Your task to perform on an android device: Add apple airpods pro to the cart on walmart, then select checkout. Image 0: 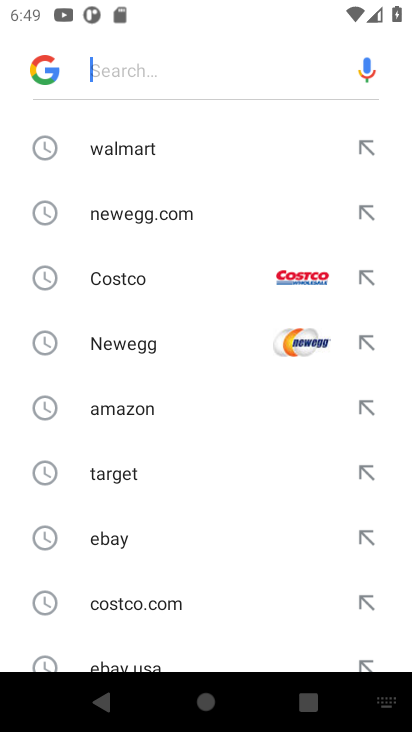
Step 0: press home button
Your task to perform on an android device: Add apple airpods pro to the cart on walmart, then select checkout. Image 1: 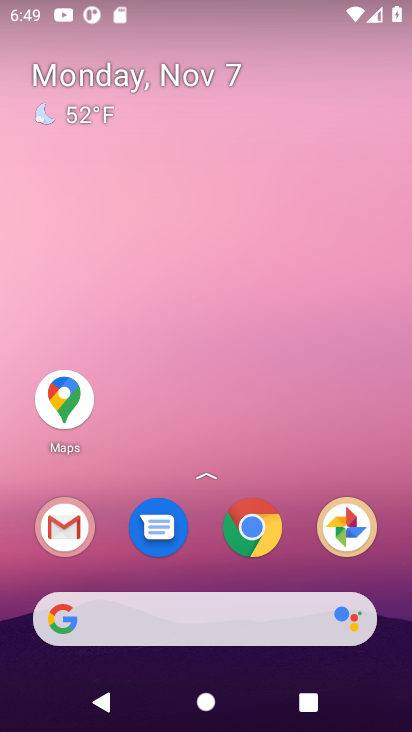
Step 1: click (242, 524)
Your task to perform on an android device: Add apple airpods pro to the cart on walmart, then select checkout. Image 2: 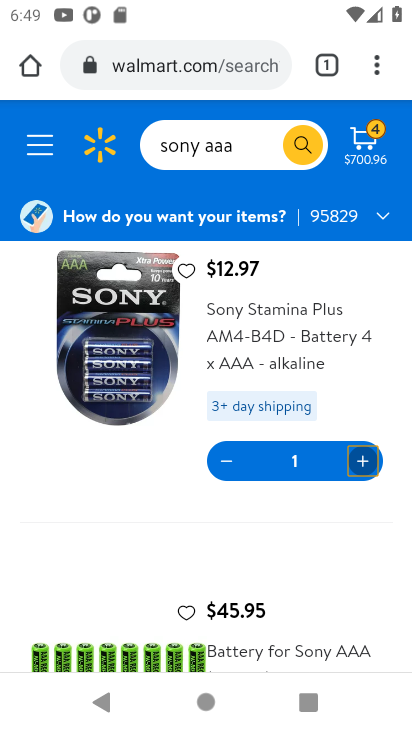
Step 2: click (242, 524)
Your task to perform on an android device: Add apple airpods pro to the cart on walmart, then select checkout. Image 3: 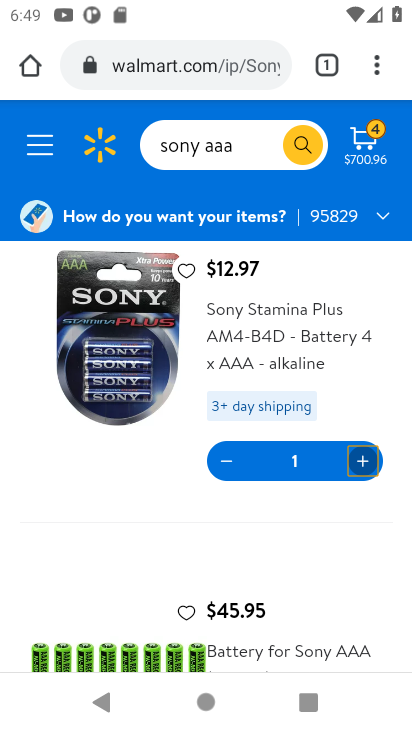
Step 3: click (242, 524)
Your task to perform on an android device: Add apple airpods pro to the cart on walmart, then select checkout. Image 4: 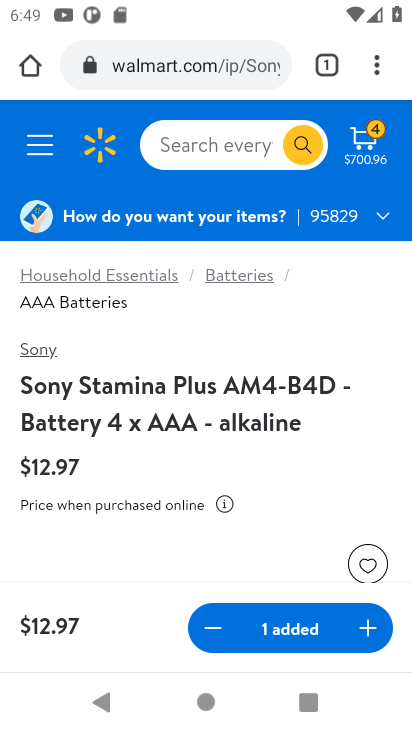
Step 4: click (228, 158)
Your task to perform on an android device: Add apple airpods pro to the cart on walmart, then select checkout. Image 5: 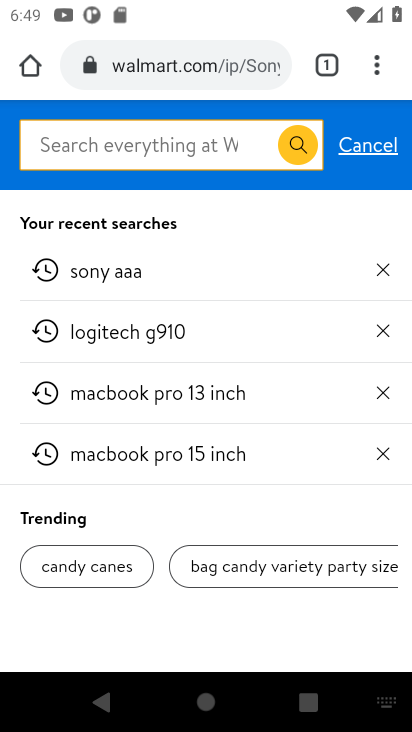
Step 5: type "apple airpods pro"
Your task to perform on an android device: Add apple airpods pro to the cart on walmart, then select checkout. Image 6: 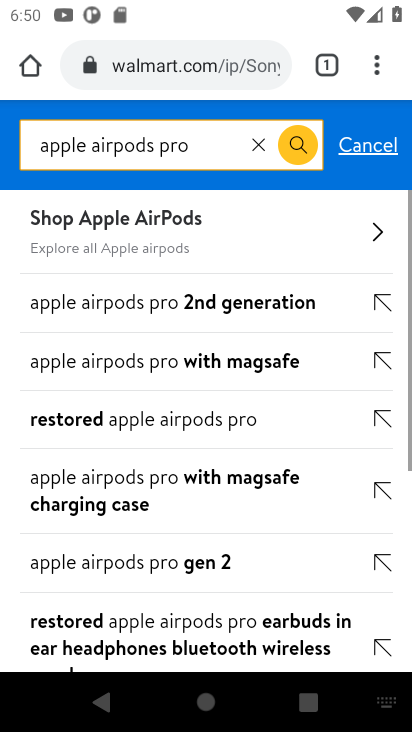
Step 6: press enter
Your task to perform on an android device: Add apple airpods pro to the cart on walmart, then select checkout. Image 7: 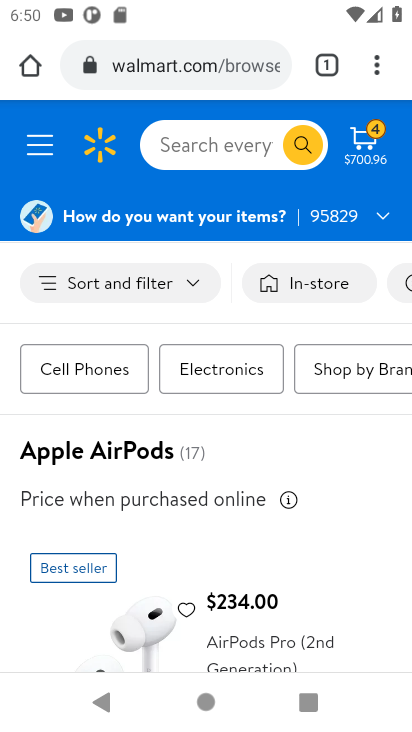
Step 7: drag from (263, 616) to (89, 170)
Your task to perform on an android device: Add apple airpods pro to the cart on walmart, then select checkout. Image 8: 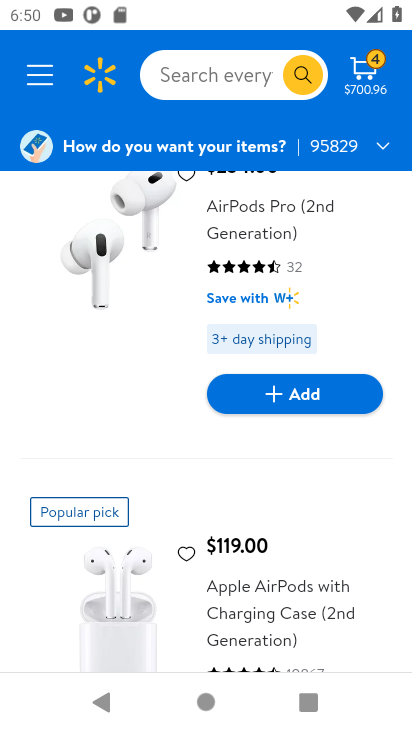
Step 8: click (278, 398)
Your task to perform on an android device: Add apple airpods pro to the cart on walmart, then select checkout. Image 9: 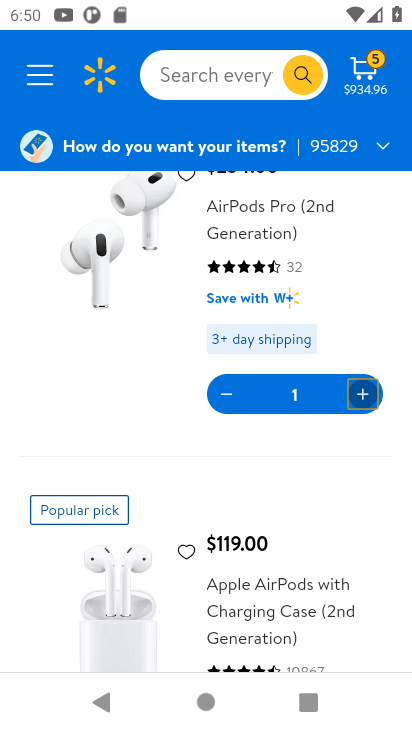
Step 9: click (368, 60)
Your task to perform on an android device: Add apple airpods pro to the cart on walmart, then select checkout. Image 10: 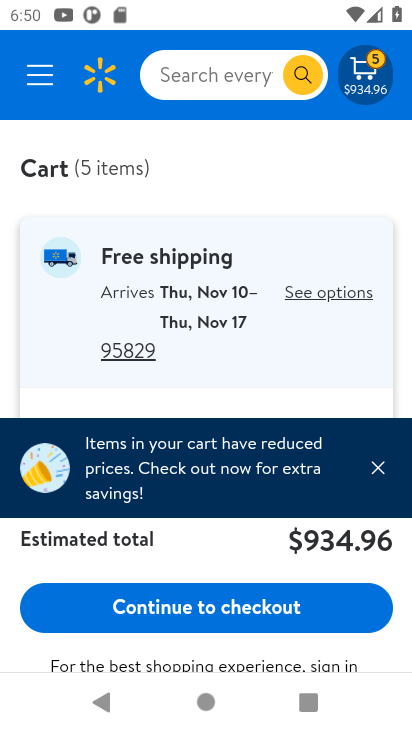
Step 10: click (239, 602)
Your task to perform on an android device: Add apple airpods pro to the cart on walmart, then select checkout. Image 11: 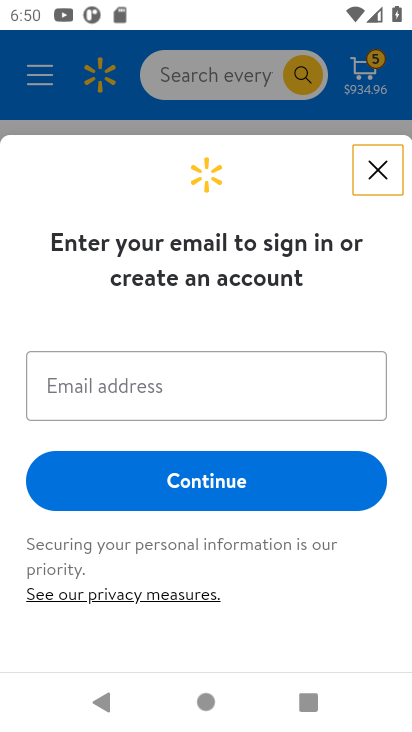
Step 11: task complete